Your task to perform on an android device: turn pop-ups off in chrome Image 0: 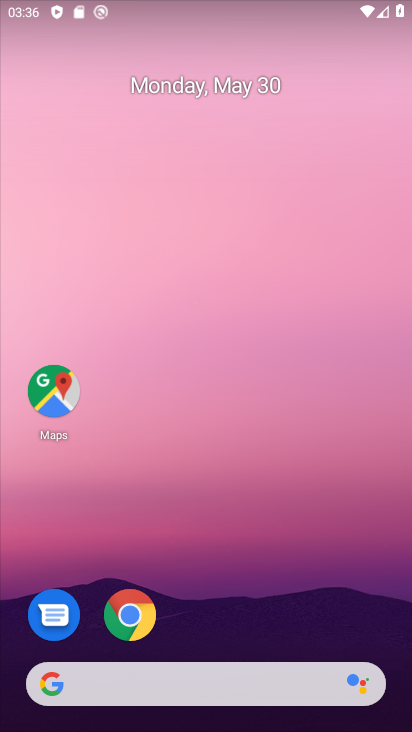
Step 0: click (131, 616)
Your task to perform on an android device: turn pop-ups off in chrome Image 1: 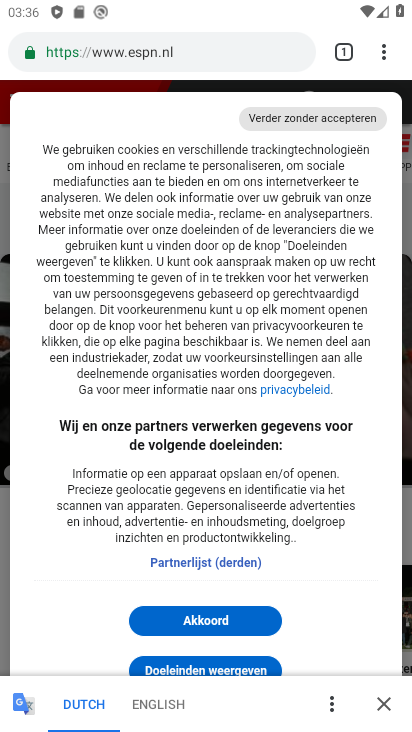
Step 1: click (383, 54)
Your task to perform on an android device: turn pop-ups off in chrome Image 2: 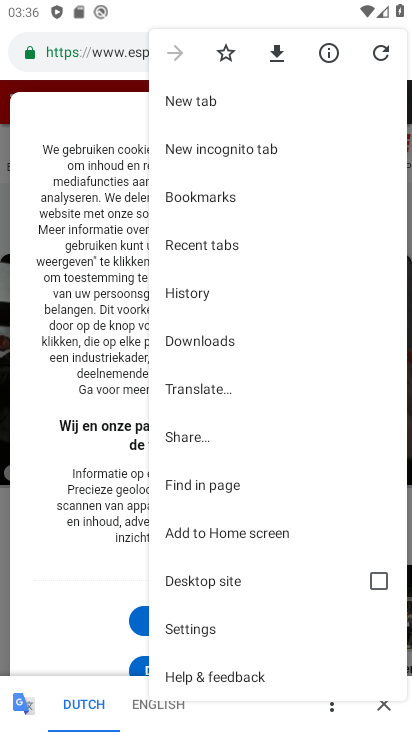
Step 2: click (197, 623)
Your task to perform on an android device: turn pop-ups off in chrome Image 3: 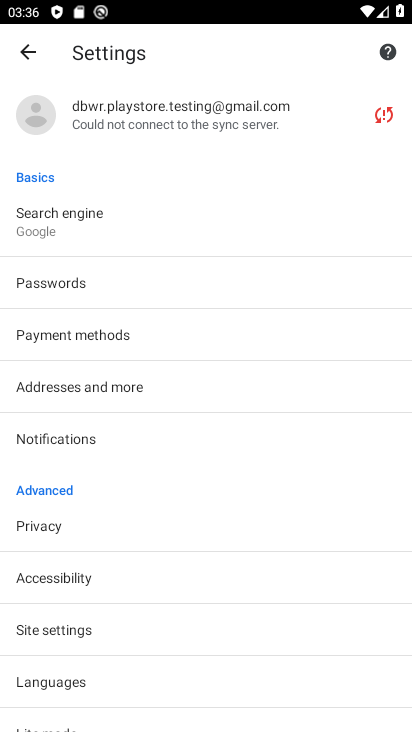
Step 3: drag from (73, 533) to (116, 435)
Your task to perform on an android device: turn pop-ups off in chrome Image 4: 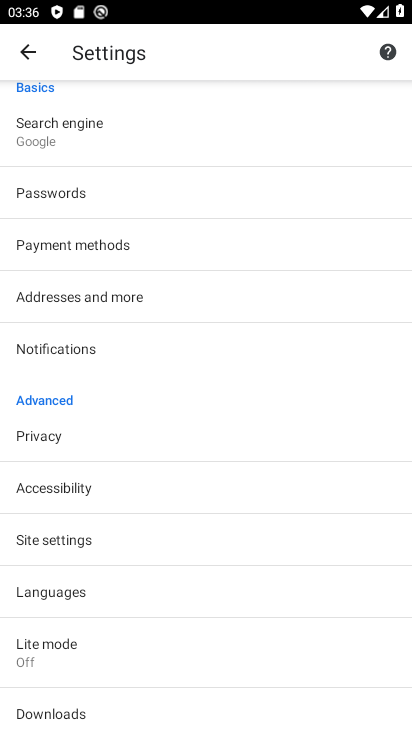
Step 4: click (74, 642)
Your task to perform on an android device: turn pop-ups off in chrome Image 5: 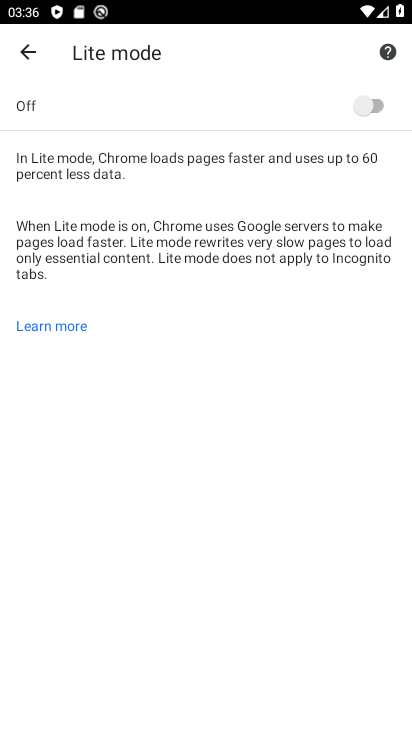
Step 5: task complete